Your task to perform on an android device: toggle improve location accuracy Image 0: 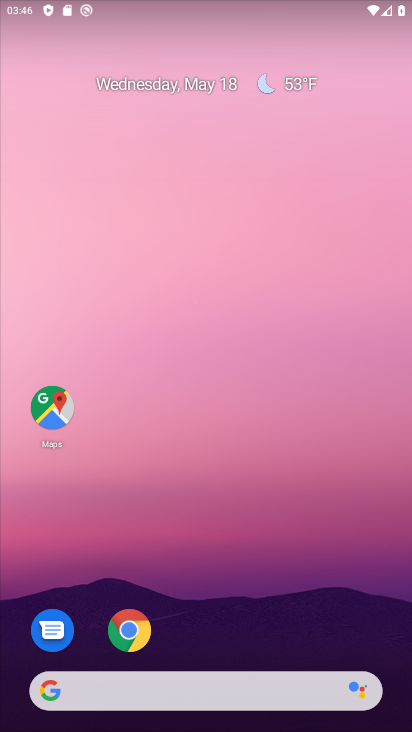
Step 0: drag from (206, 720) to (268, 128)
Your task to perform on an android device: toggle improve location accuracy Image 1: 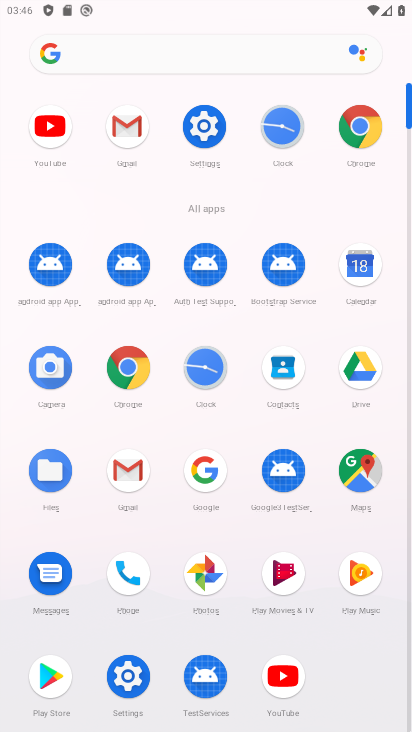
Step 1: click (201, 129)
Your task to perform on an android device: toggle improve location accuracy Image 2: 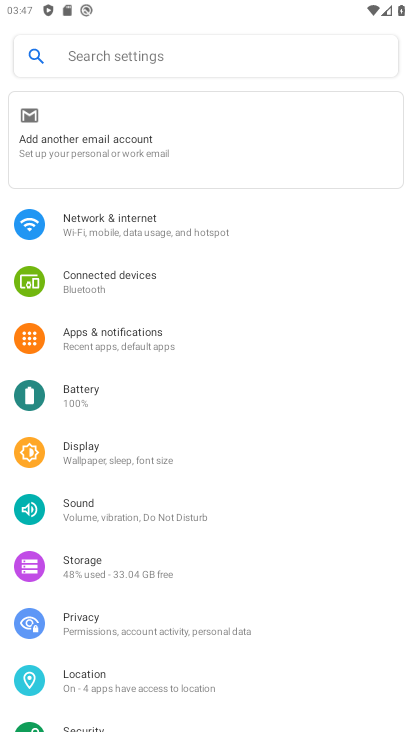
Step 2: click (80, 676)
Your task to perform on an android device: toggle improve location accuracy Image 3: 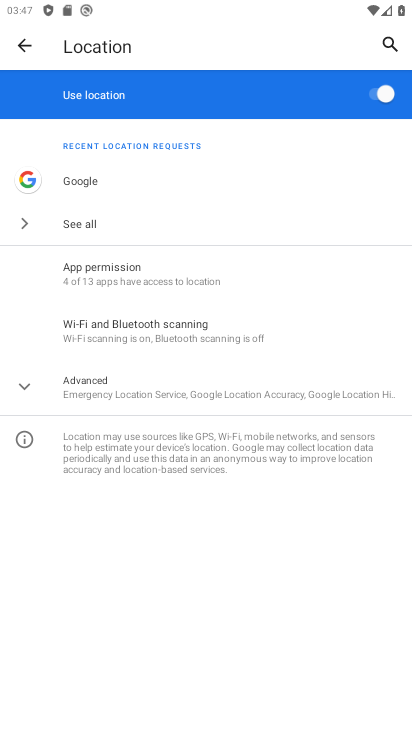
Step 3: click (91, 388)
Your task to perform on an android device: toggle improve location accuracy Image 4: 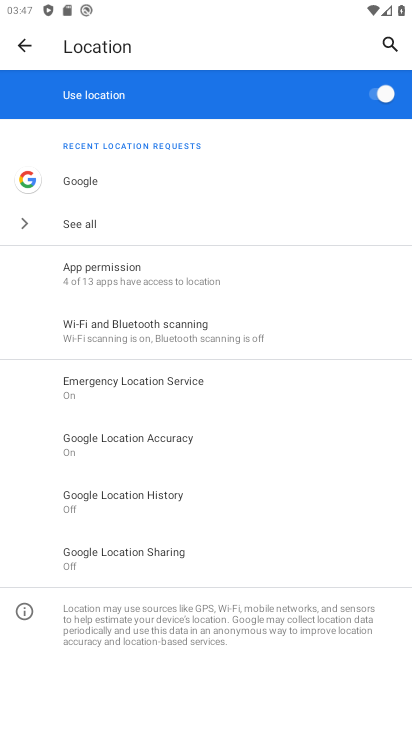
Step 4: click (132, 439)
Your task to perform on an android device: toggle improve location accuracy Image 5: 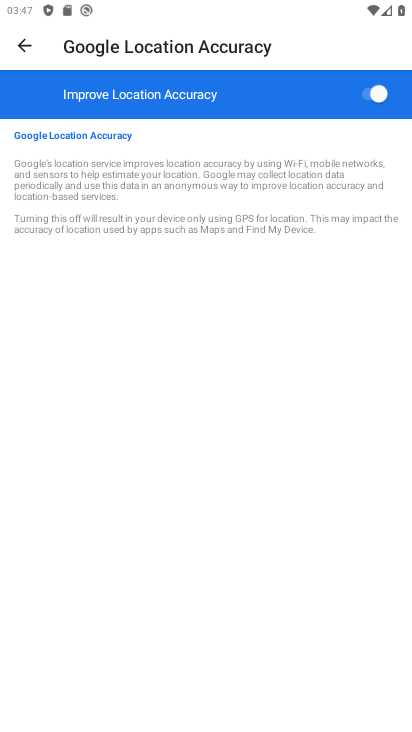
Step 5: click (361, 94)
Your task to perform on an android device: toggle improve location accuracy Image 6: 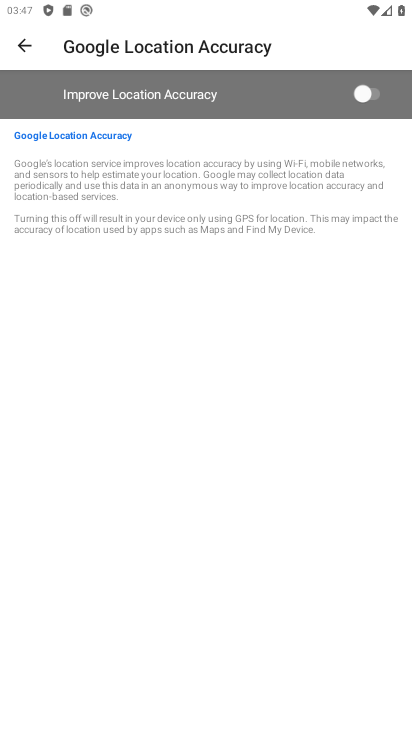
Step 6: task complete